Your task to perform on an android device: open a bookmark in the chrome app Image 0: 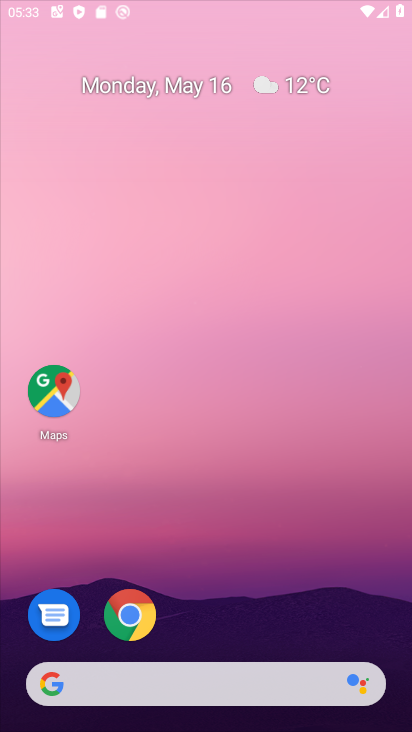
Step 0: press back button
Your task to perform on an android device: open a bookmark in the chrome app Image 1: 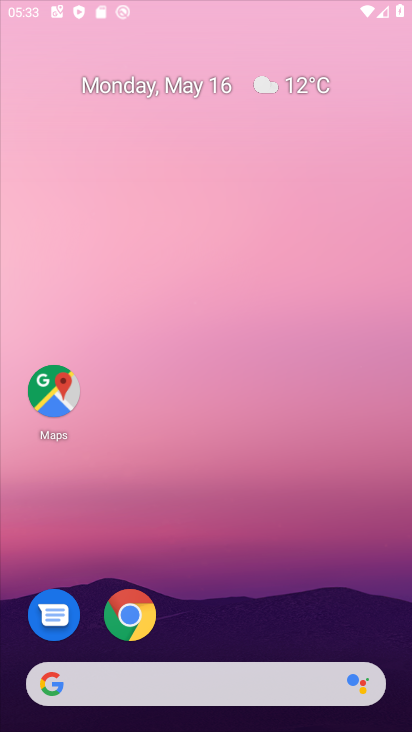
Step 1: click (65, 26)
Your task to perform on an android device: open a bookmark in the chrome app Image 2: 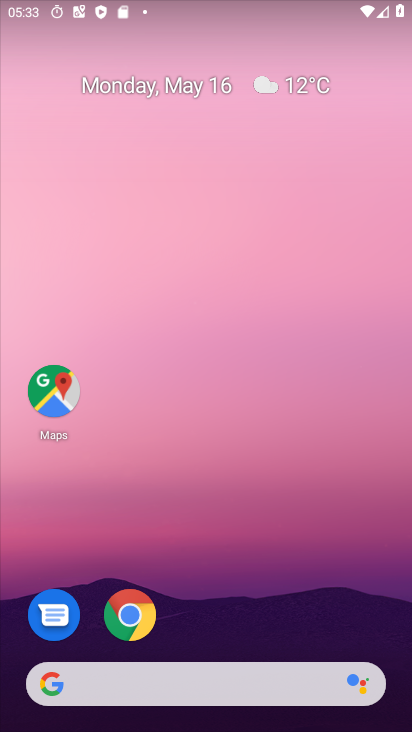
Step 2: drag from (207, 533) to (130, 62)
Your task to perform on an android device: open a bookmark in the chrome app Image 3: 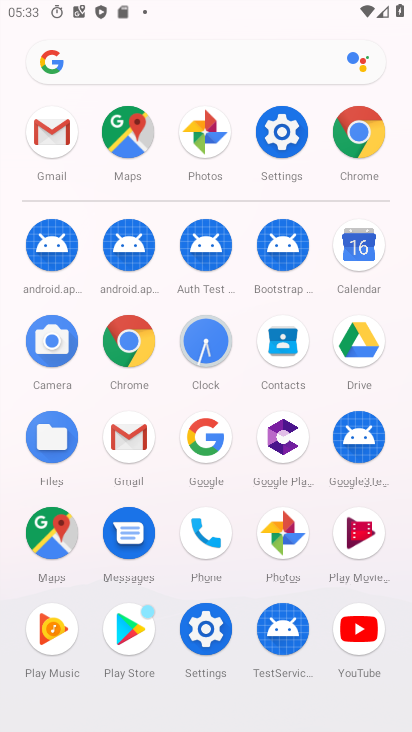
Step 3: click (358, 134)
Your task to perform on an android device: open a bookmark in the chrome app Image 4: 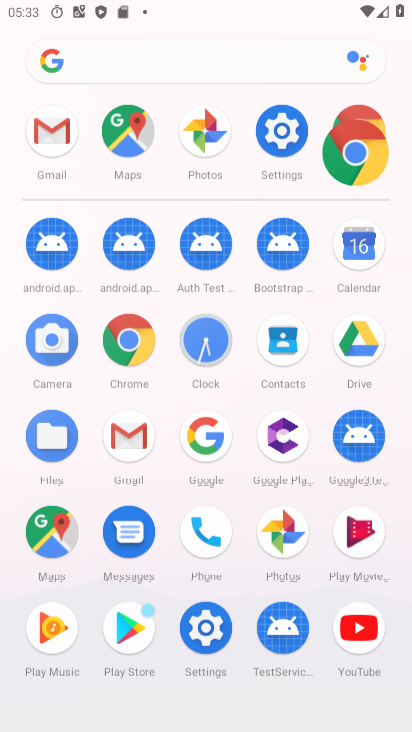
Step 4: click (359, 134)
Your task to perform on an android device: open a bookmark in the chrome app Image 5: 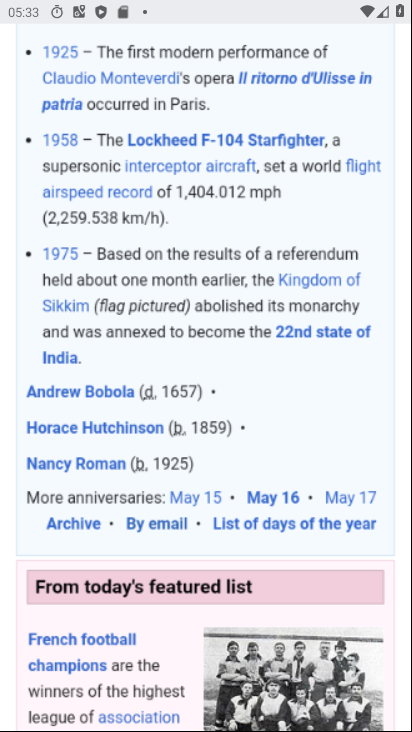
Step 5: click (359, 134)
Your task to perform on an android device: open a bookmark in the chrome app Image 6: 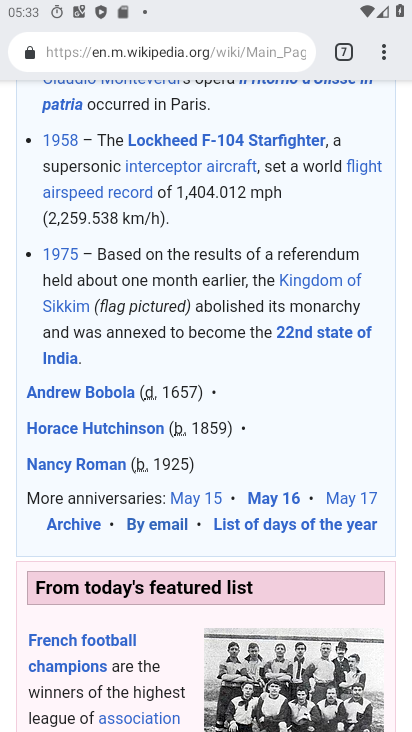
Step 6: drag from (265, 520) to (300, 46)
Your task to perform on an android device: open a bookmark in the chrome app Image 7: 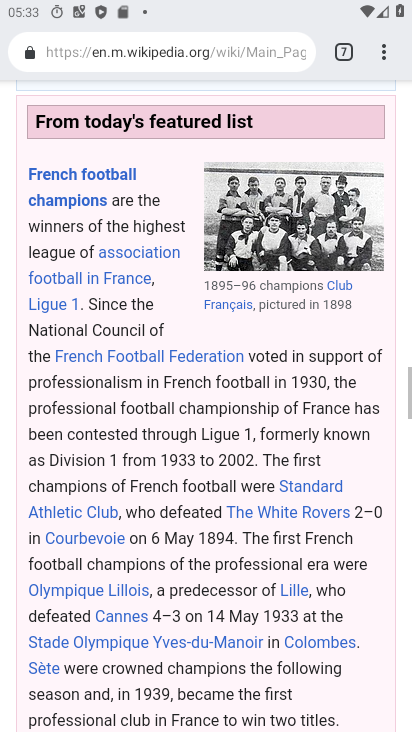
Step 7: drag from (252, 263) to (151, 569)
Your task to perform on an android device: open a bookmark in the chrome app Image 8: 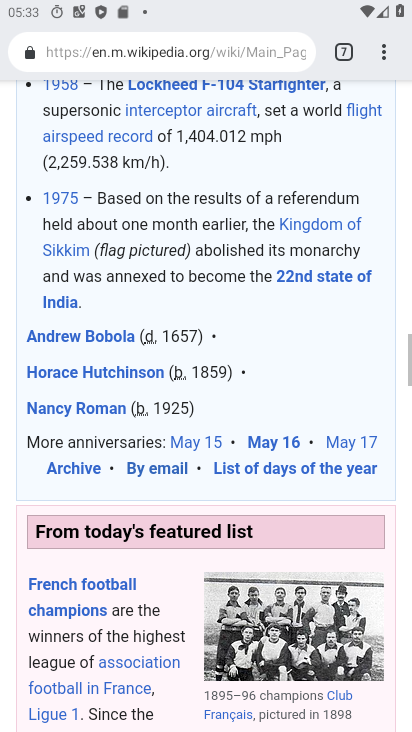
Step 8: drag from (209, 216) to (273, 502)
Your task to perform on an android device: open a bookmark in the chrome app Image 9: 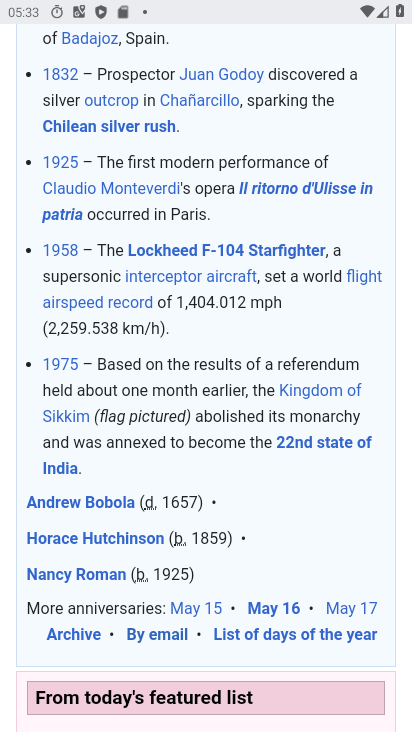
Step 9: press home button
Your task to perform on an android device: open a bookmark in the chrome app Image 10: 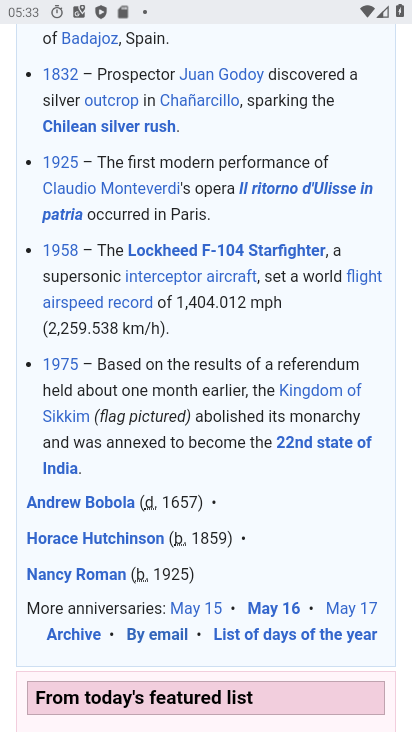
Step 10: press home button
Your task to perform on an android device: open a bookmark in the chrome app Image 11: 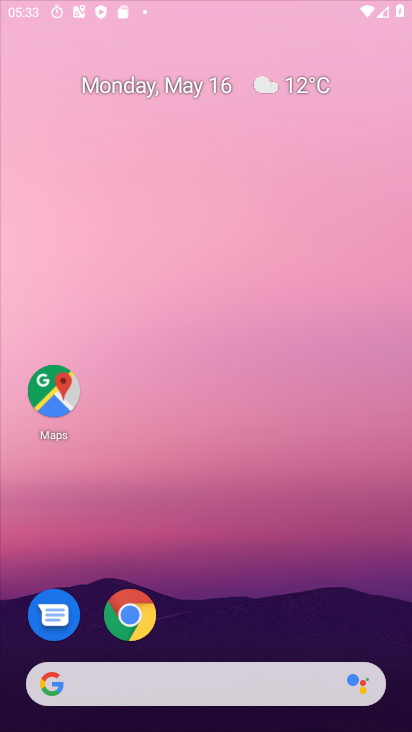
Step 11: press home button
Your task to perform on an android device: open a bookmark in the chrome app Image 12: 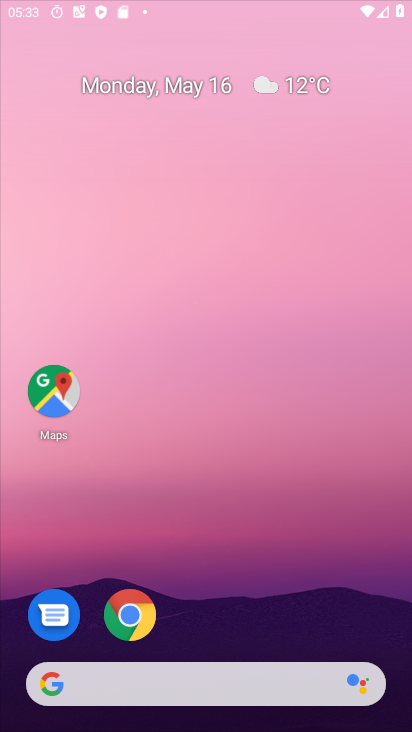
Step 12: drag from (273, 502) to (408, 448)
Your task to perform on an android device: open a bookmark in the chrome app Image 13: 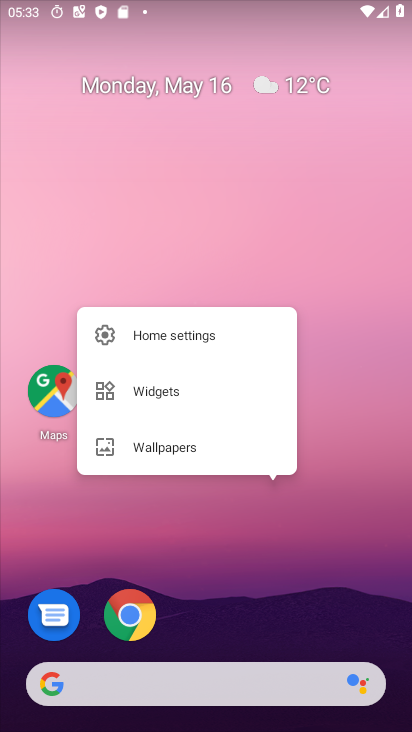
Step 13: drag from (210, 537) to (181, 28)
Your task to perform on an android device: open a bookmark in the chrome app Image 14: 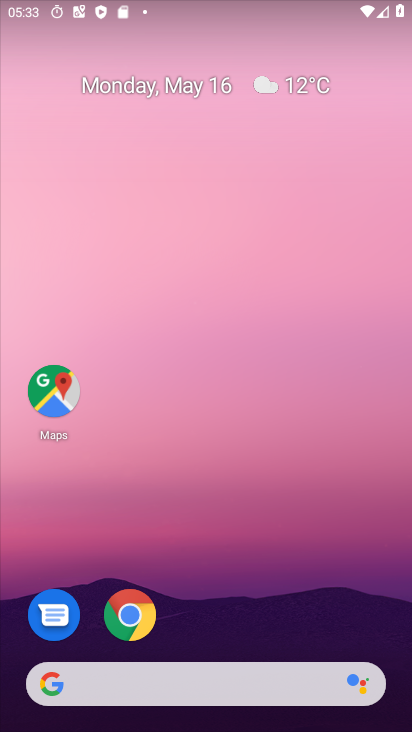
Step 14: drag from (280, 559) to (251, 24)
Your task to perform on an android device: open a bookmark in the chrome app Image 15: 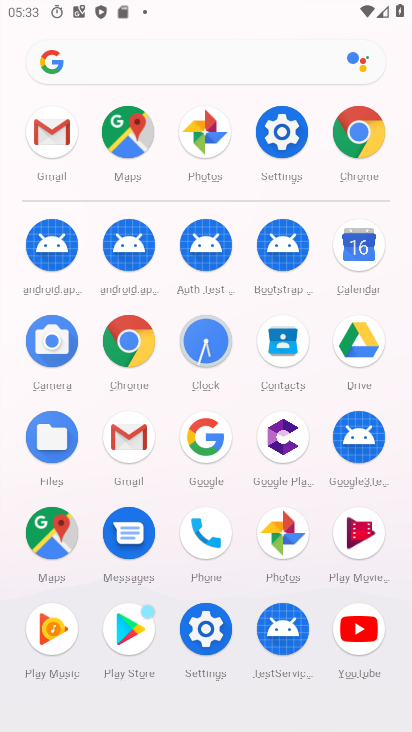
Step 15: drag from (214, 348) to (227, 2)
Your task to perform on an android device: open a bookmark in the chrome app Image 16: 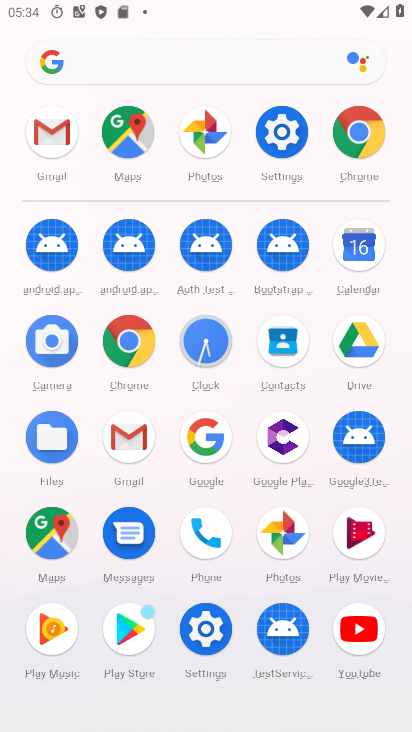
Step 16: click (345, 128)
Your task to perform on an android device: open a bookmark in the chrome app Image 17: 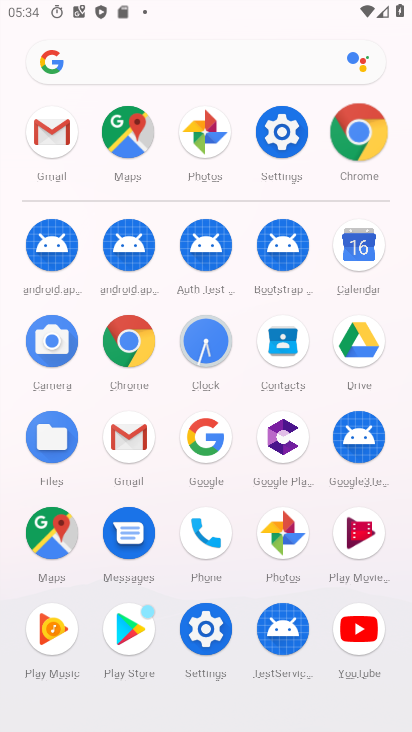
Step 17: click (344, 128)
Your task to perform on an android device: open a bookmark in the chrome app Image 18: 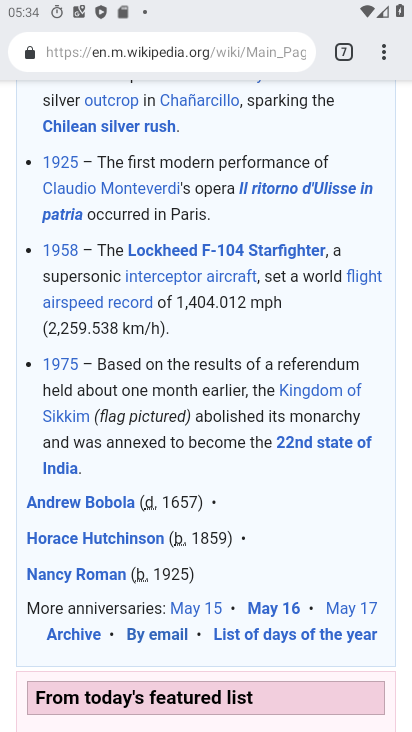
Step 18: drag from (385, 46) to (187, 250)
Your task to perform on an android device: open a bookmark in the chrome app Image 19: 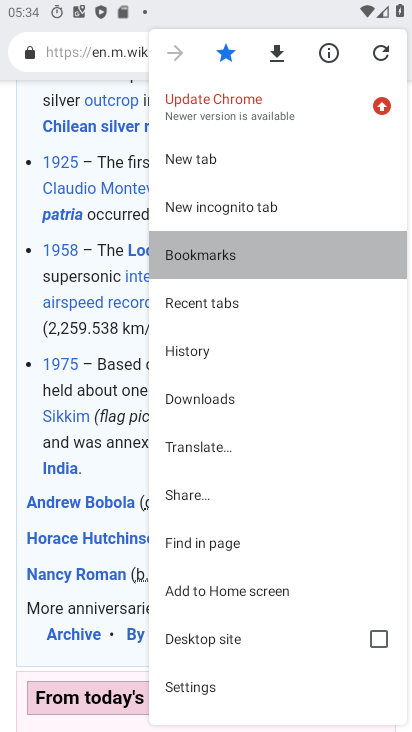
Step 19: click (187, 256)
Your task to perform on an android device: open a bookmark in the chrome app Image 20: 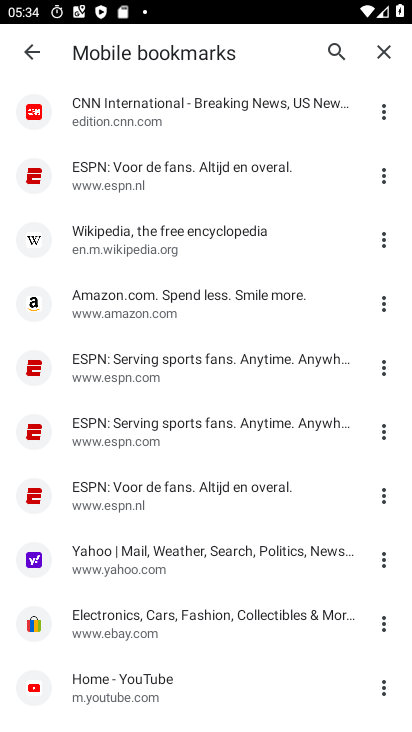
Step 20: drag from (384, 112) to (149, 114)
Your task to perform on an android device: open a bookmark in the chrome app Image 21: 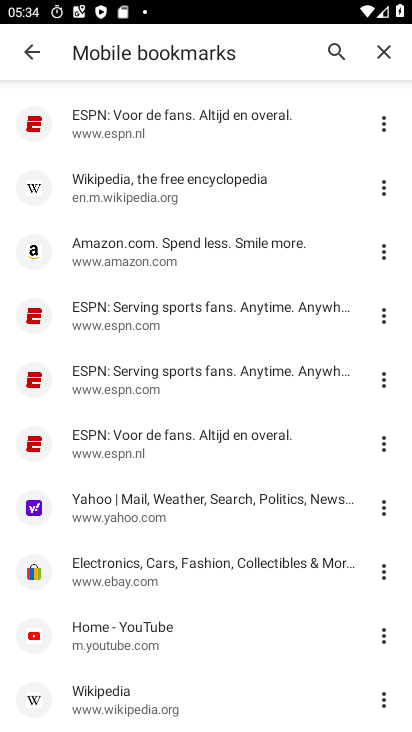
Step 21: click (148, 113)
Your task to perform on an android device: open a bookmark in the chrome app Image 22: 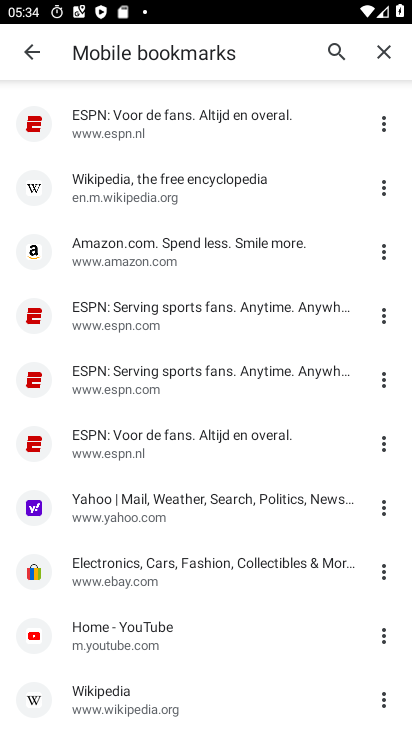
Step 22: click (146, 112)
Your task to perform on an android device: open a bookmark in the chrome app Image 23: 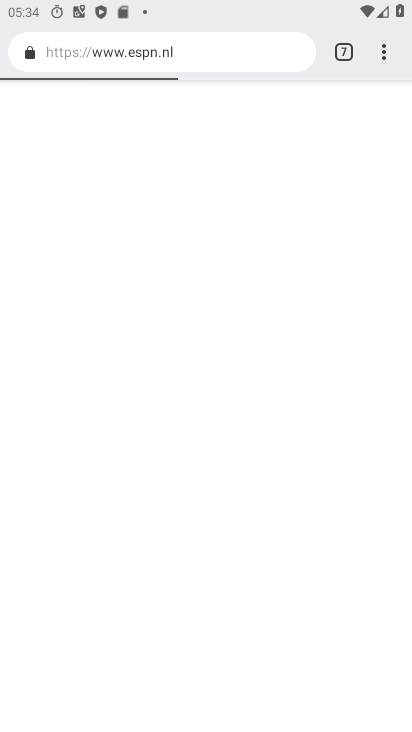
Step 23: task complete